Your task to perform on an android device: Go to settings Image 0: 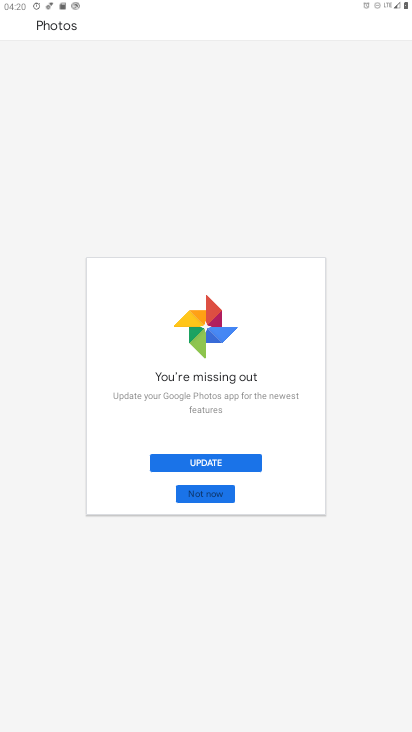
Step 0: press home button
Your task to perform on an android device: Go to settings Image 1: 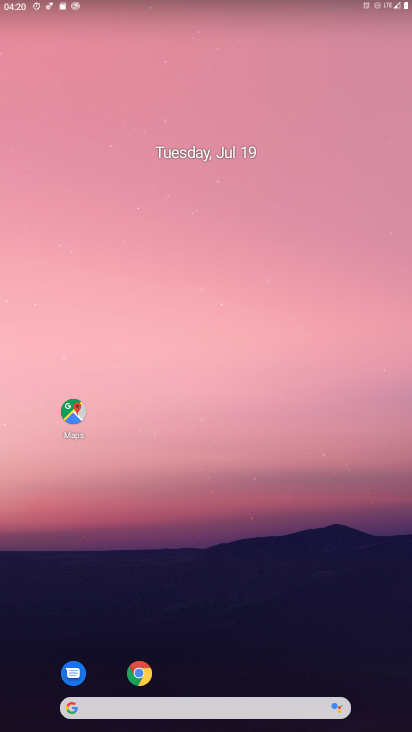
Step 1: drag from (194, 665) to (245, 46)
Your task to perform on an android device: Go to settings Image 2: 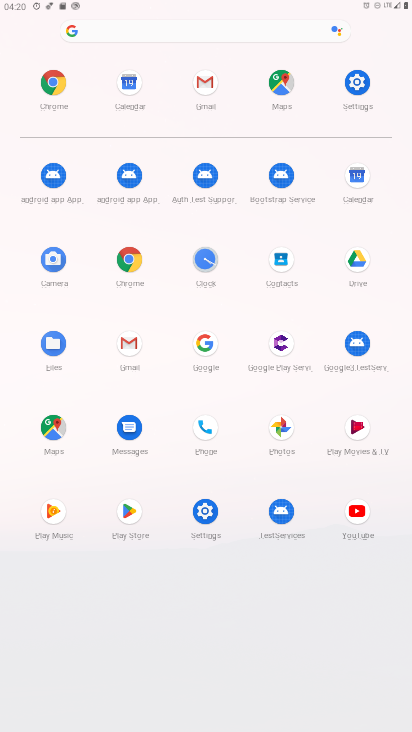
Step 2: click (213, 526)
Your task to perform on an android device: Go to settings Image 3: 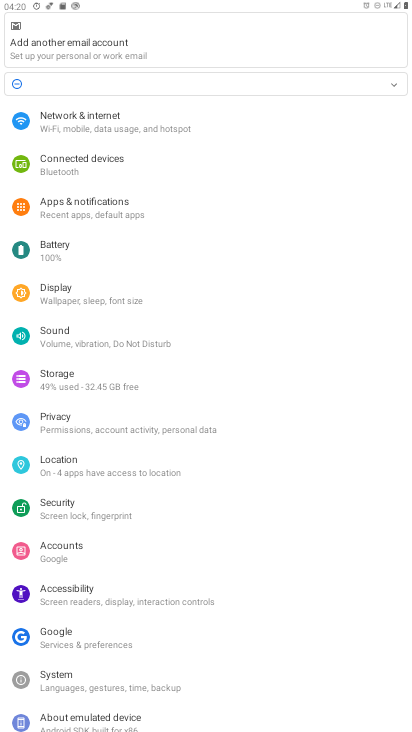
Step 3: task complete